Your task to perform on an android device: Open the calendar app, open the side menu, and click the "Day" option Image 0: 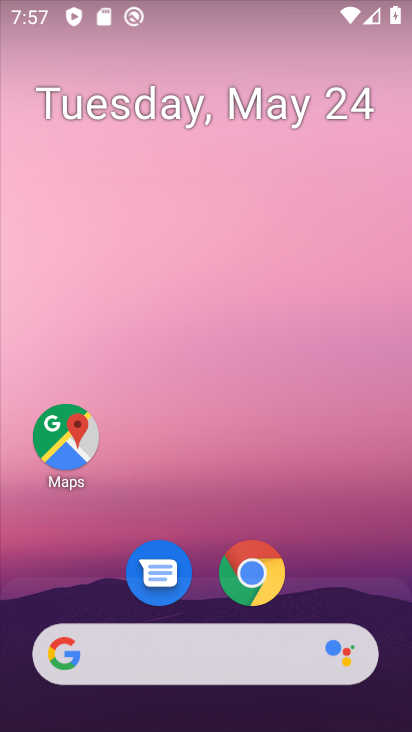
Step 0: drag from (321, 606) to (250, 14)
Your task to perform on an android device: Open the calendar app, open the side menu, and click the "Day" option Image 1: 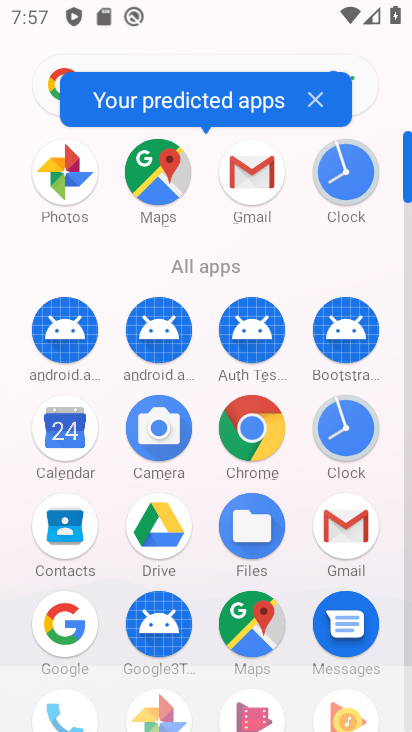
Step 1: click (53, 425)
Your task to perform on an android device: Open the calendar app, open the side menu, and click the "Day" option Image 2: 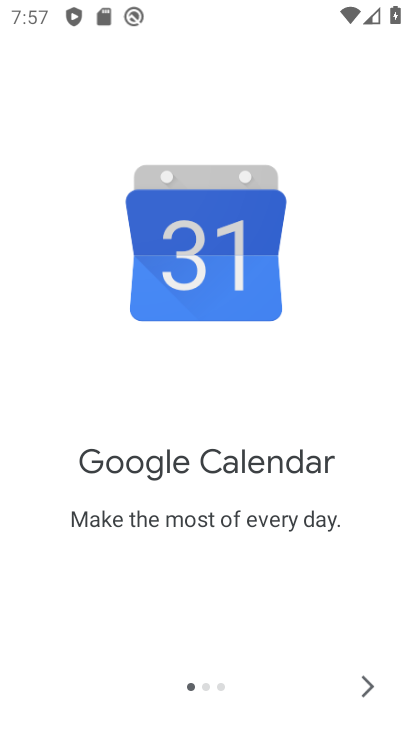
Step 2: click (357, 676)
Your task to perform on an android device: Open the calendar app, open the side menu, and click the "Day" option Image 3: 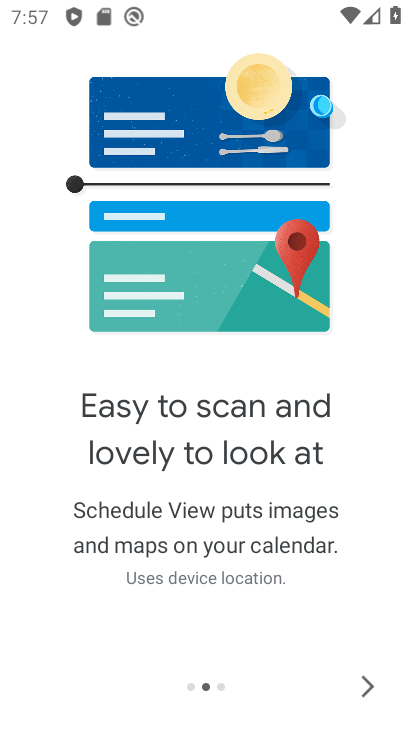
Step 3: click (362, 683)
Your task to perform on an android device: Open the calendar app, open the side menu, and click the "Day" option Image 4: 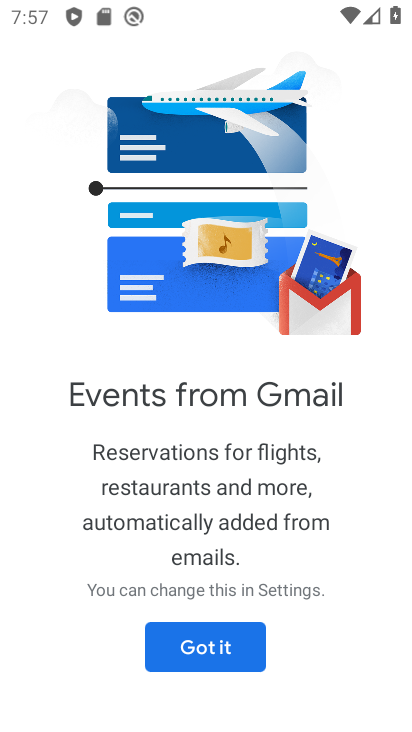
Step 4: click (231, 655)
Your task to perform on an android device: Open the calendar app, open the side menu, and click the "Day" option Image 5: 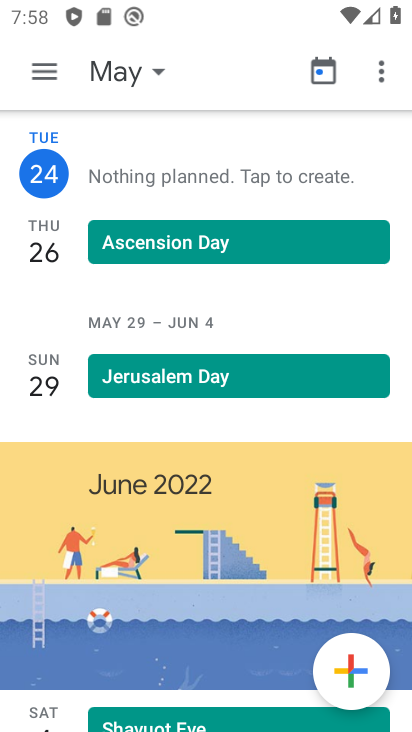
Step 5: click (36, 69)
Your task to perform on an android device: Open the calendar app, open the side menu, and click the "Day" option Image 6: 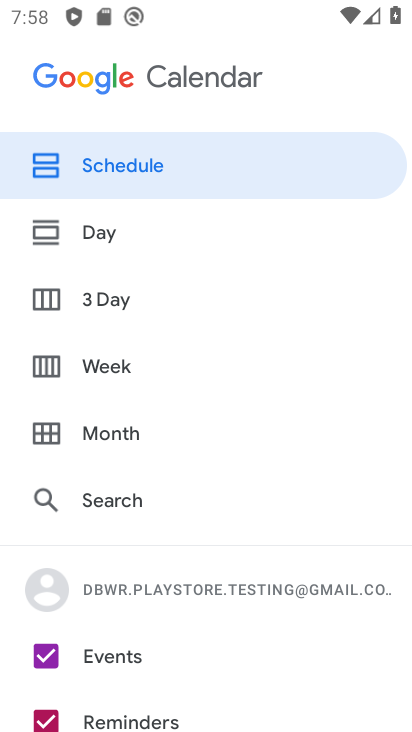
Step 6: click (155, 229)
Your task to perform on an android device: Open the calendar app, open the side menu, and click the "Day" option Image 7: 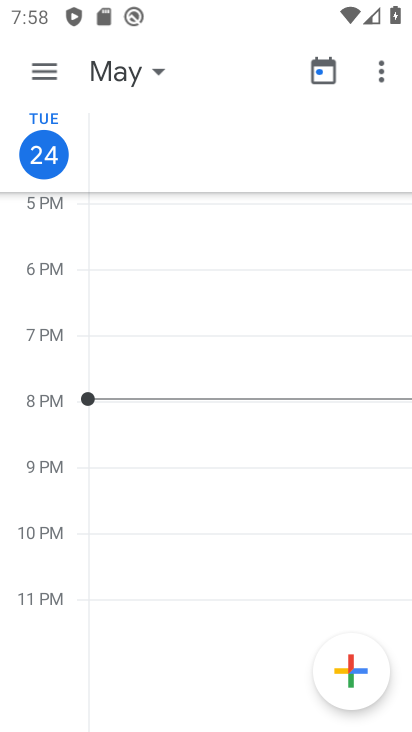
Step 7: task complete